Your task to perform on an android device: turn off location Image 0: 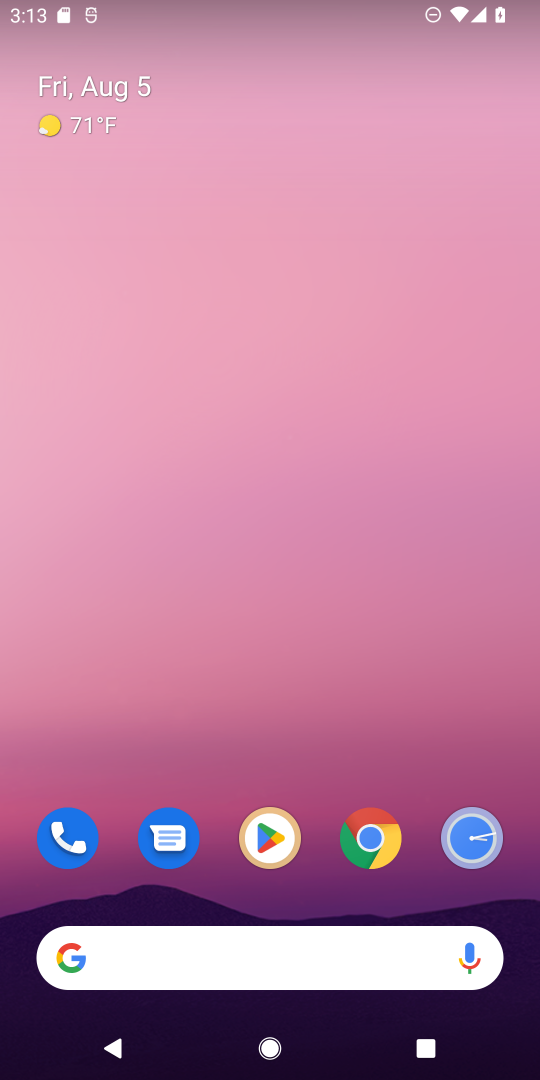
Step 0: drag from (326, 883) to (299, 82)
Your task to perform on an android device: turn off location Image 1: 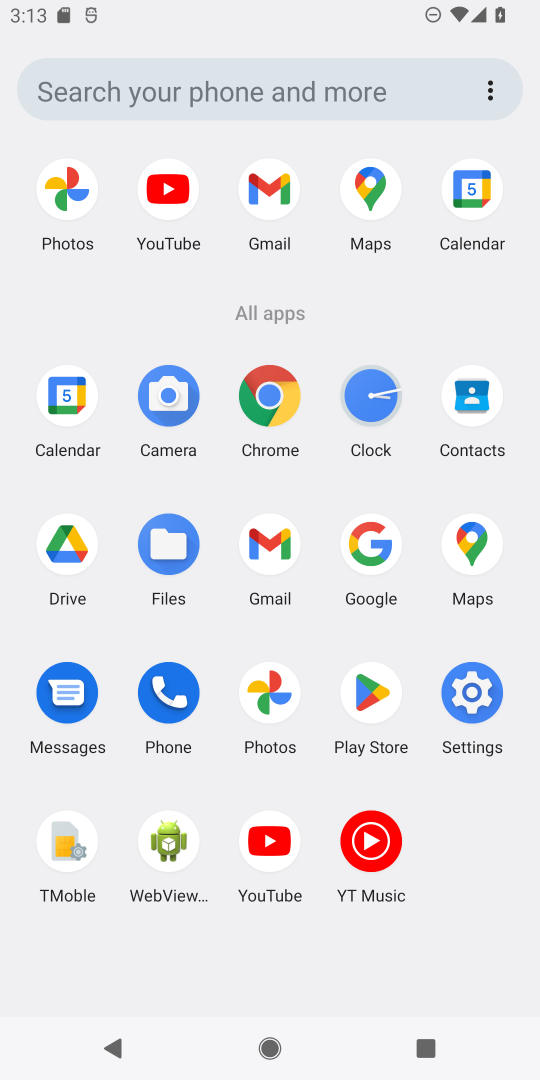
Step 1: click (471, 707)
Your task to perform on an android device: turn off location Image 2: 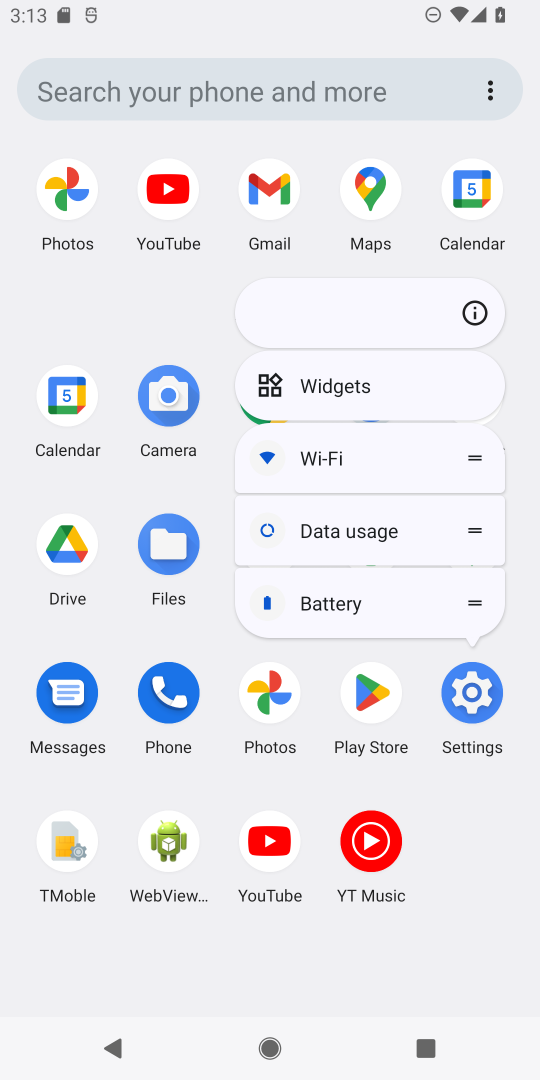
Step 2: click (471, 707)
Your task to perform on an android device: turn off location Image 3: 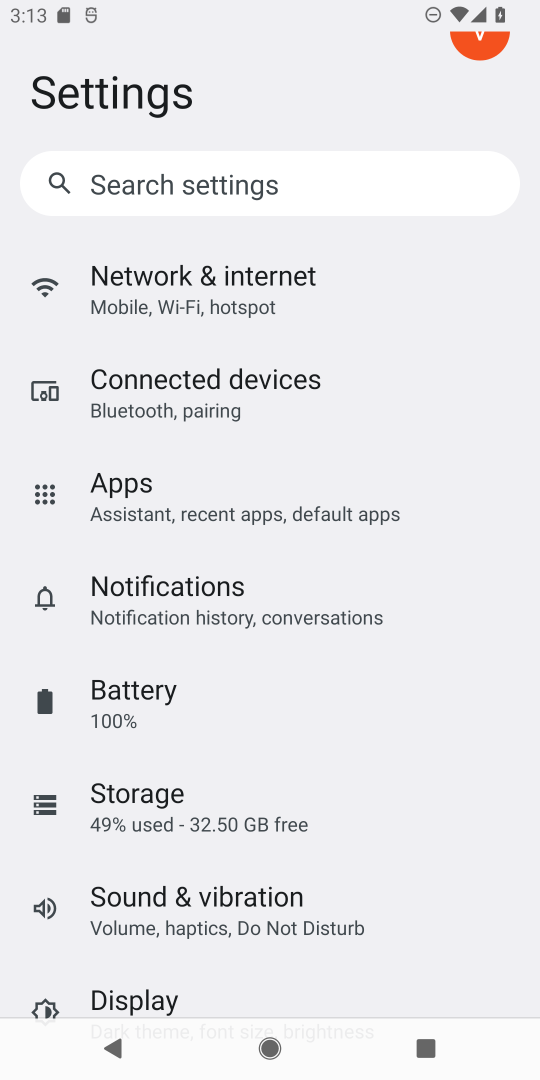
Step 3: drag from (380, 950) to (268, 126)
Your task to perform on an android device: turn off location Image 4: 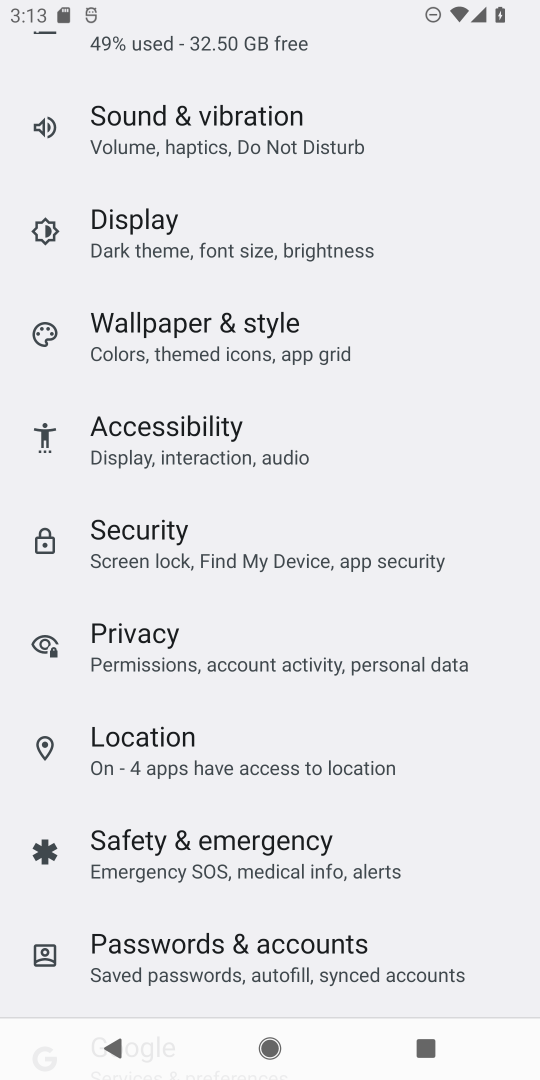
Step 4: click (365, 752)
Your task to perform on an android device: turn off location Image 5: 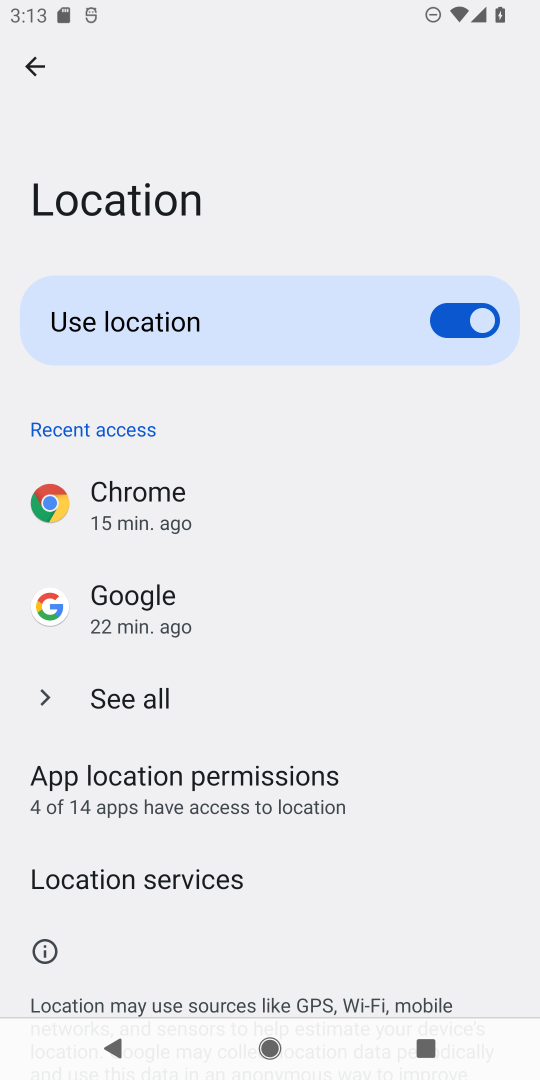
Step 5: click (446, 335)
Your task to perform on an android device: turn off location Image 6: 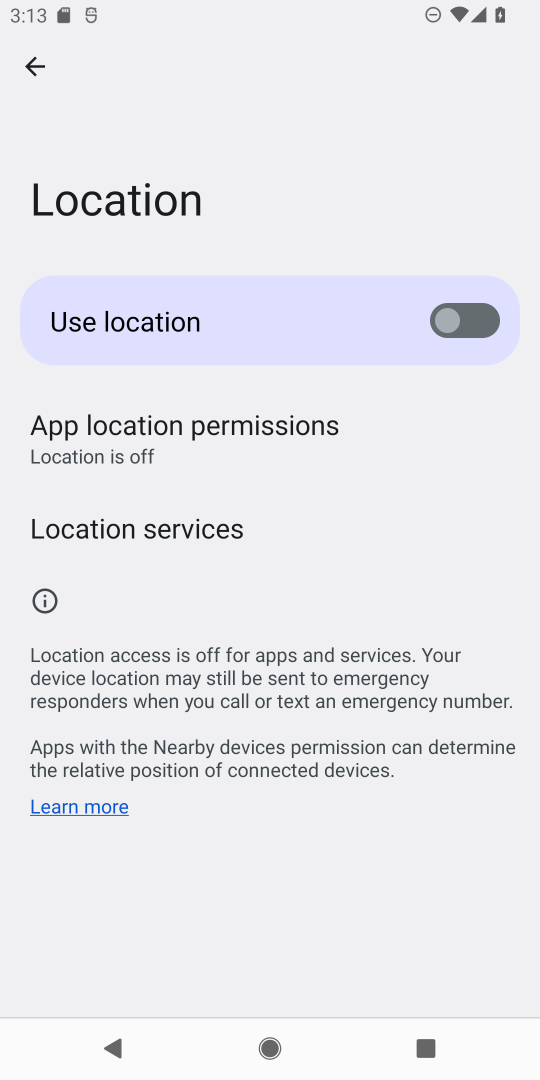
Step 6: task complete